Your task to perform on an android device: Turn off the flashlight Image 0: 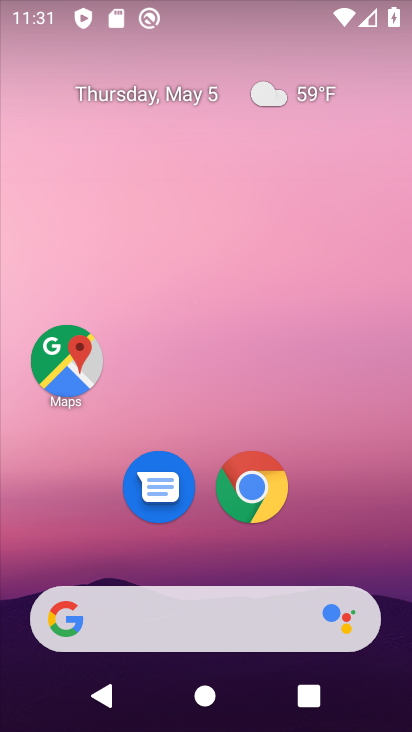
Step 0: drag from (337, 448) to (115, 115)
Your task to perform on an android device: Turn off the flashlight Image 1: 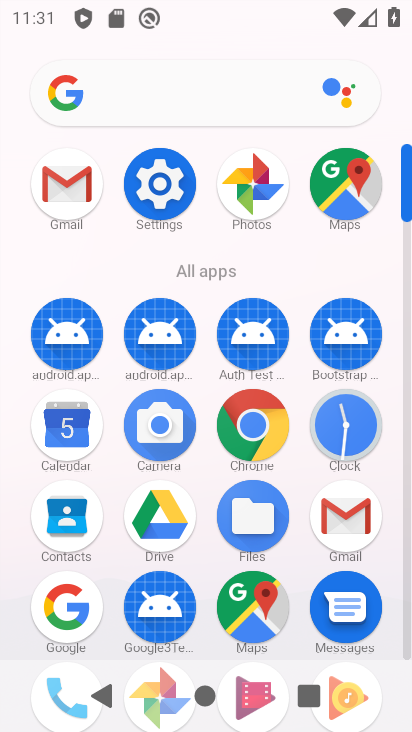
Step 1: click (162, 188)
Your task to perform on an android device: Turn off the flashlight Image 2: 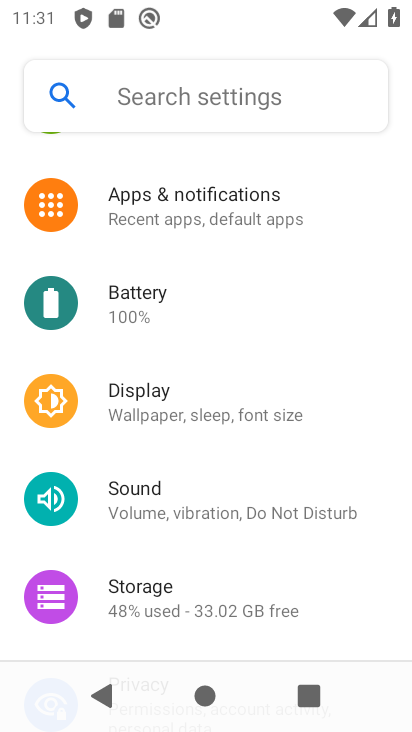
Step 2: click (174, 100)
Your task to perform on an android device: Turn off the flashlight Image 3: 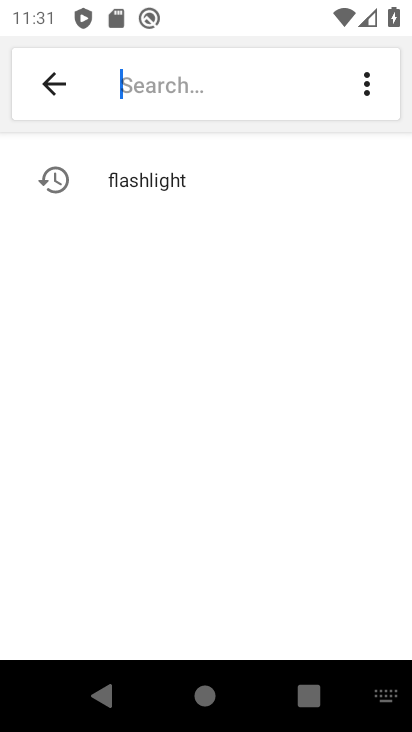
Step 3: click (144, 178)
Your task to perform on an android device: Turn off the flashlight Image 4: 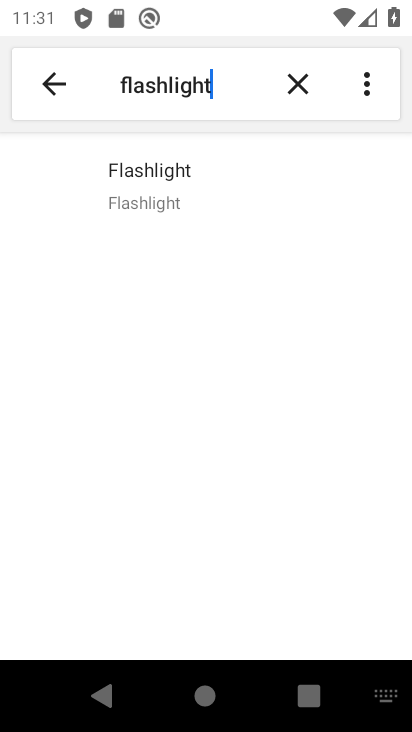
Step 4: click (144, 178)
Your task to perform on an android device: Turn off the flashlight Image 5: 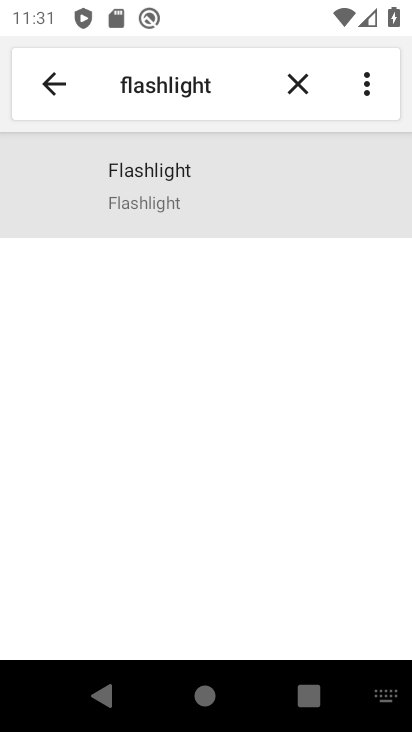
Step 5: click (144, 178)
Your task to perform on an android device: Turn off the flashlight Image 6: 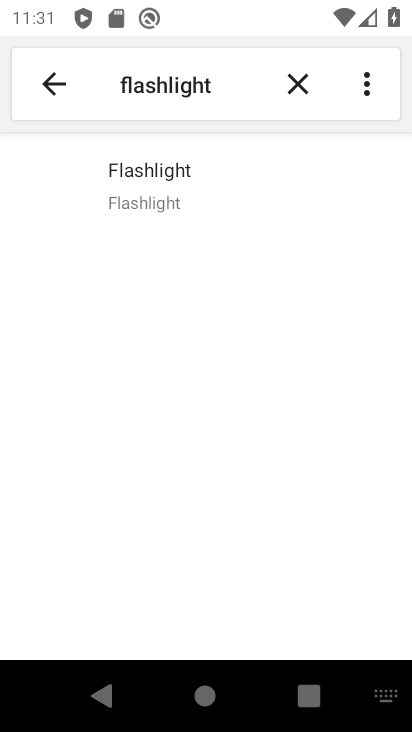
Step 6: task complete